Your task to perform on an android device: Go to Wikipedia Image 0: 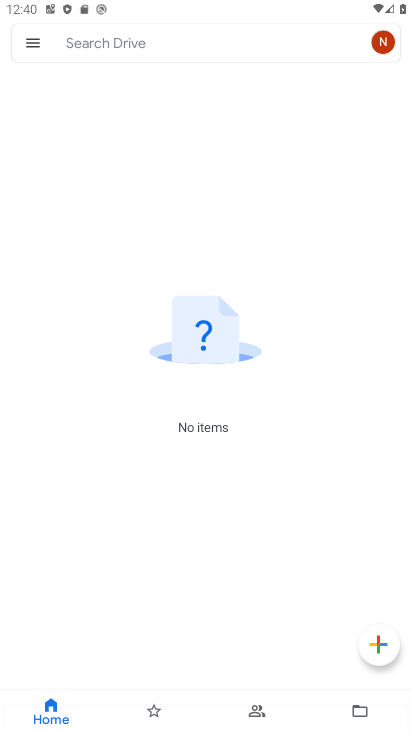
Step 0: press home button
Your task to perform on an android device: Go to Wikipedia Image 1: 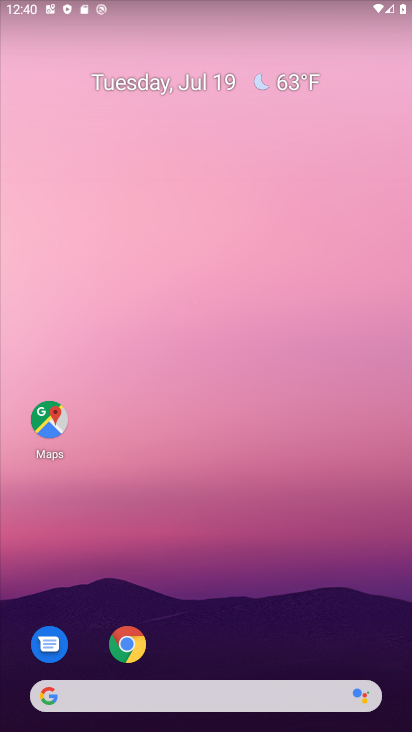
Step 1: drag from (232, 714) to (217, 133)
Your task to perform on an android device: Go to Wikipedia Image 2: 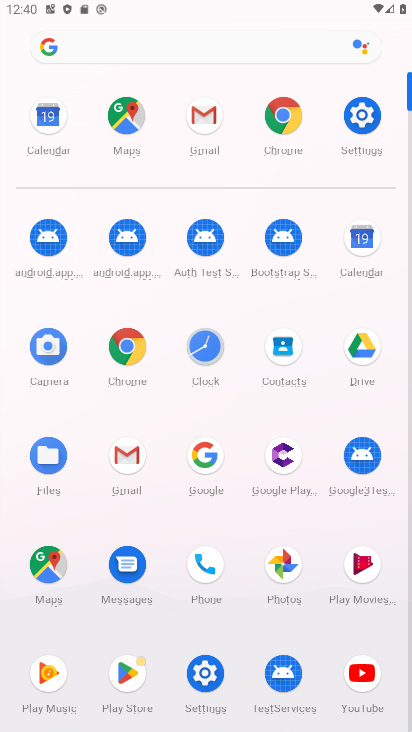
Step 2: click (287, 115)
Your task to perform on an android device: Go to Wikipedia Image 3: 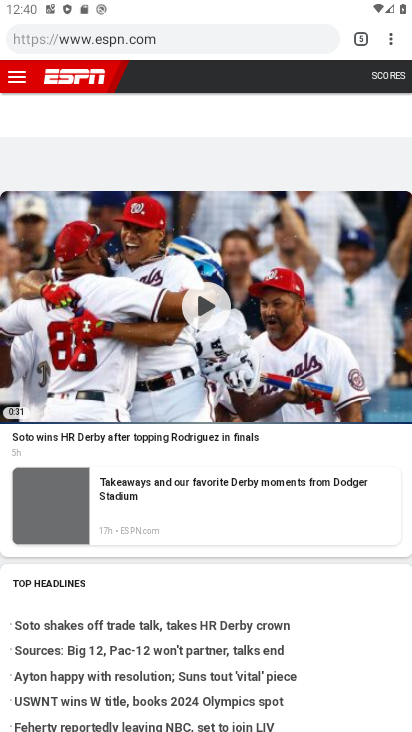
Step 3: click (389, 41)
Your task to perform on an android device: Go to Wikipedia Image 4: 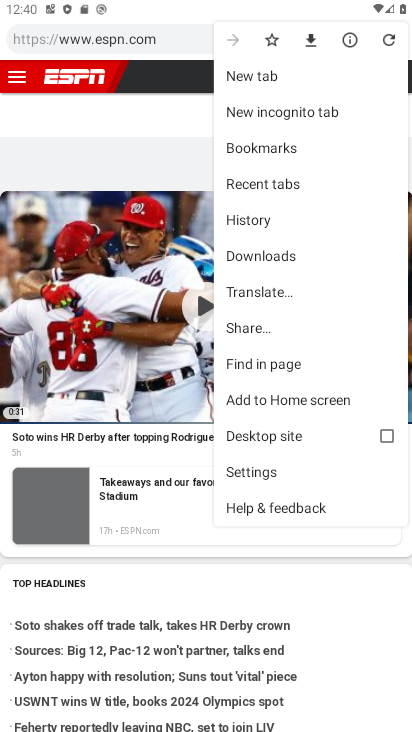
Step 4: click (257, 73)
Your task to perform on an android device: Go to Wikipedia Image 5: 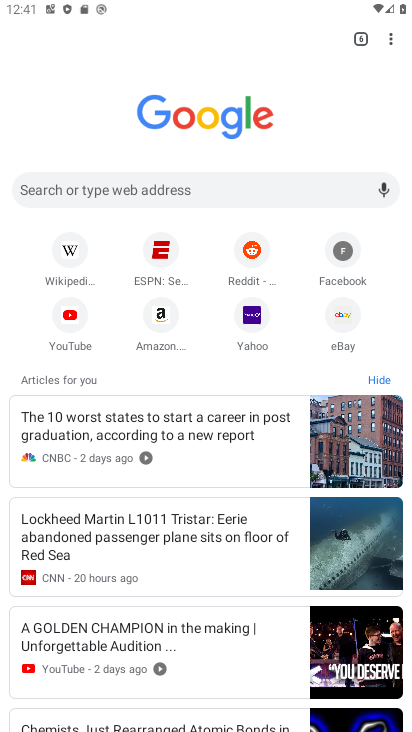
Step 5: click (70, 245)
Your task to perform on an android device: Go to Wikipedia Image 6: 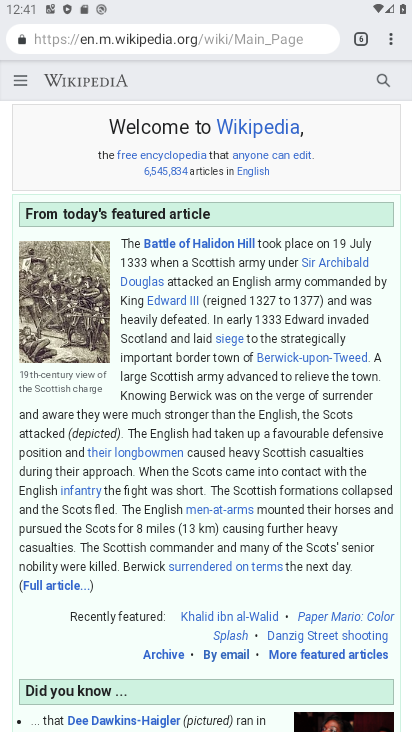
Step 6: task complete